Your task to perform on an android device: turn on wifi Image 0: 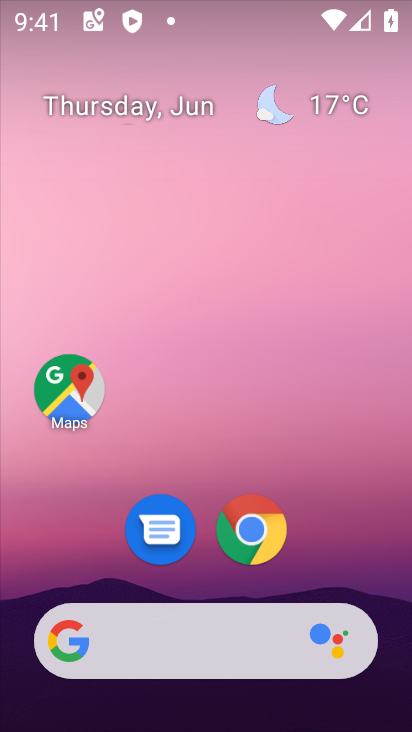
Step 0: drag from (396, 608) to (296, 82)
Your task to perform on an android device: turn on wifi Image 1: 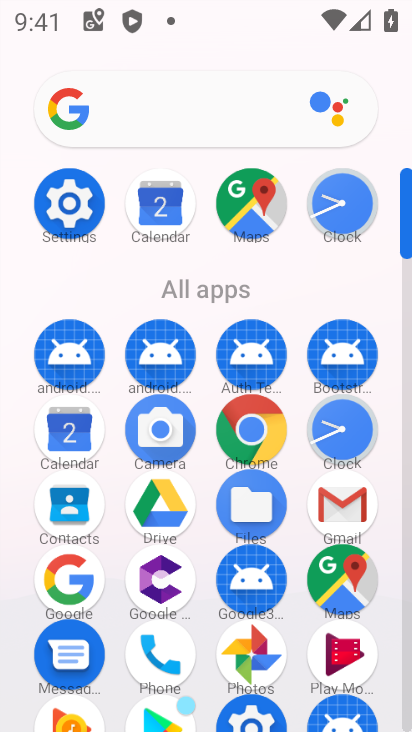
Step 1: click (406, 668)
Your task to perform on an android device: turn on wifi Image 2: 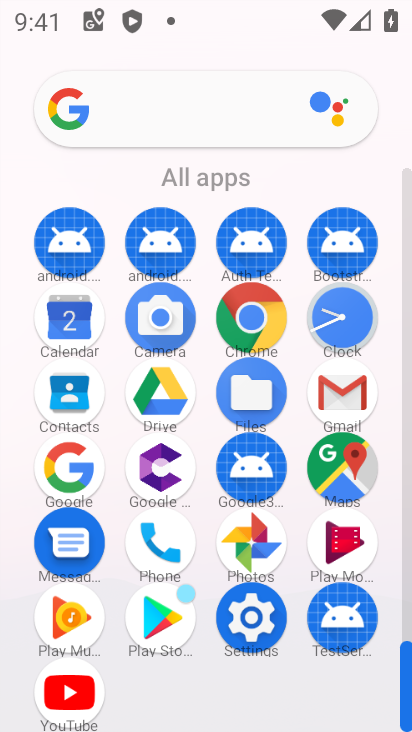
Step 2: click (252, 620)
Your task to perform on an android device: turn on wifi Image 3: 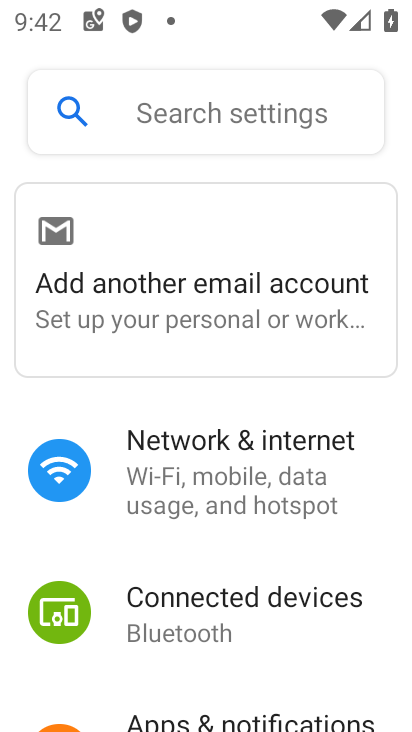
Step 3: click (182, 466)
Your task to perform on an android device: turn on wifi Image 4: 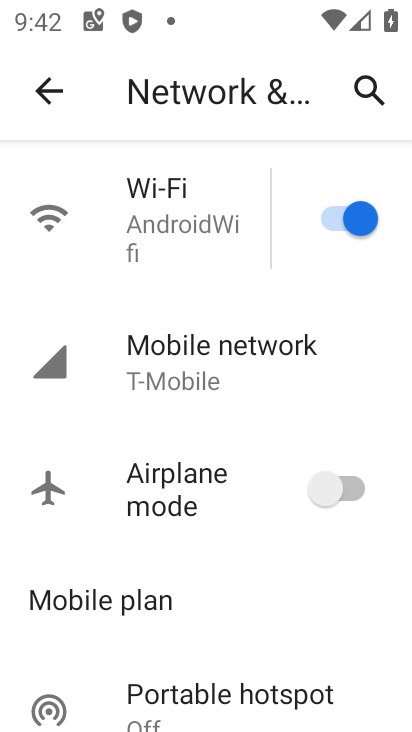
Step 4: task complete